Your task to perform on an android device: uninstall "AliExpress" Image 0: 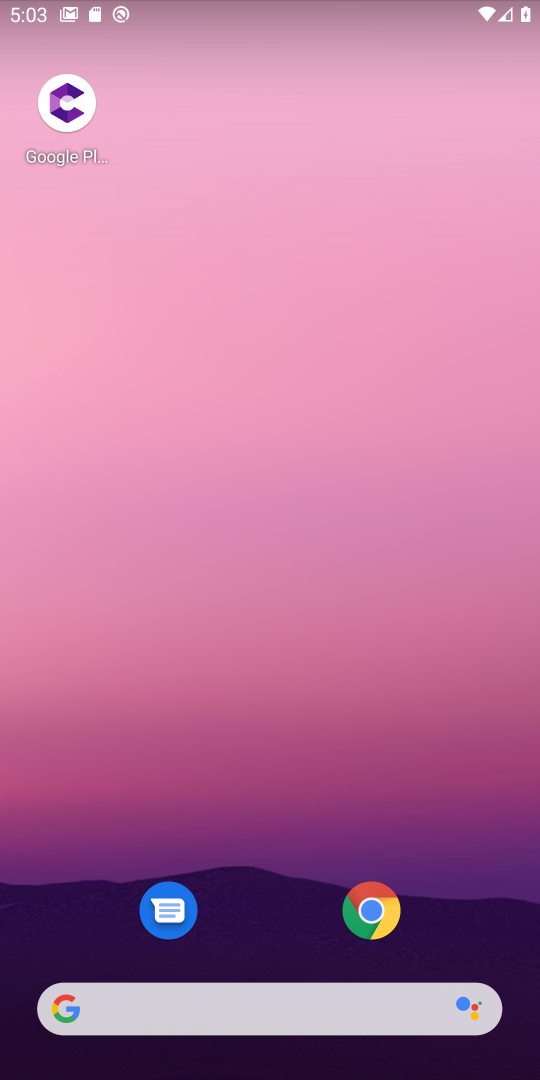
Step 0: drag from (279, 895) to (279, 45)
Your task to perform on an android device: uninstall "AliExpress" Image 1: 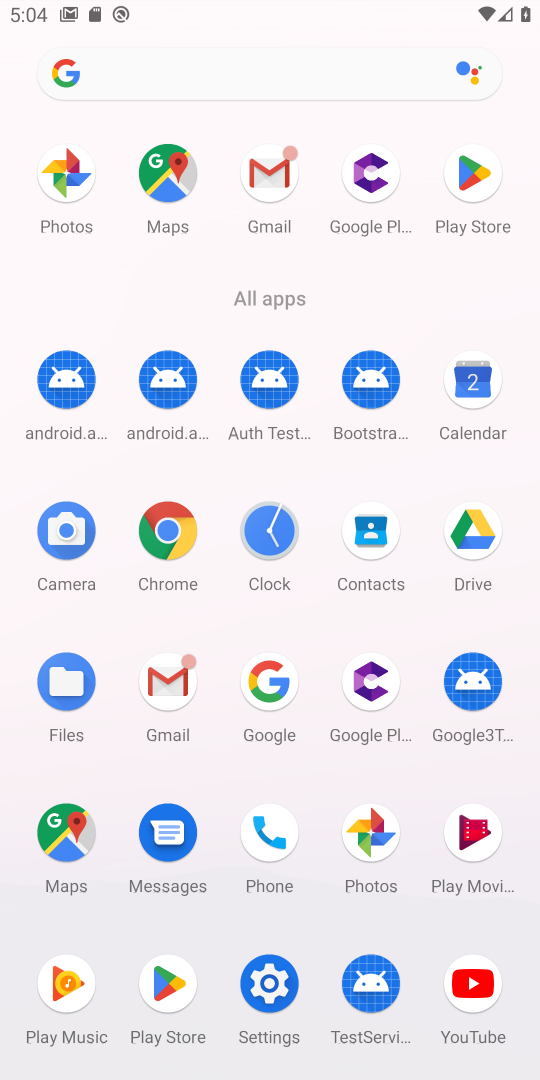
Step 1: click (466, 192)
Your task to perform on an android device: uninstall "AliExpress" Image 2: 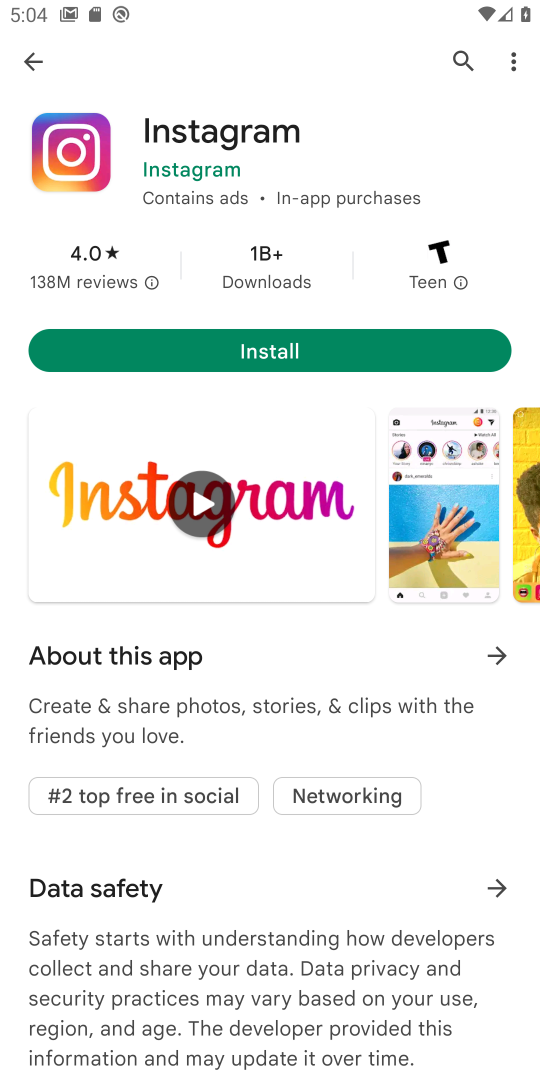
Step 2: click (463, 66)
Your task to perform on an android device: uninstall "AliExpress" Image 3: 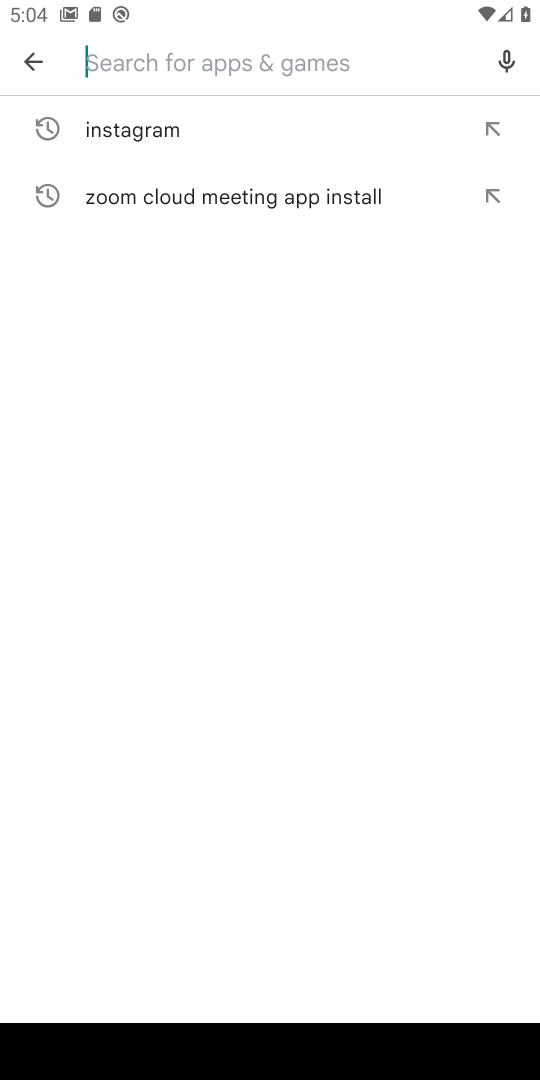
Step 3: type "aliexpress"
Your task to perform on an android device: uninstall "AliExpress" Image 4: 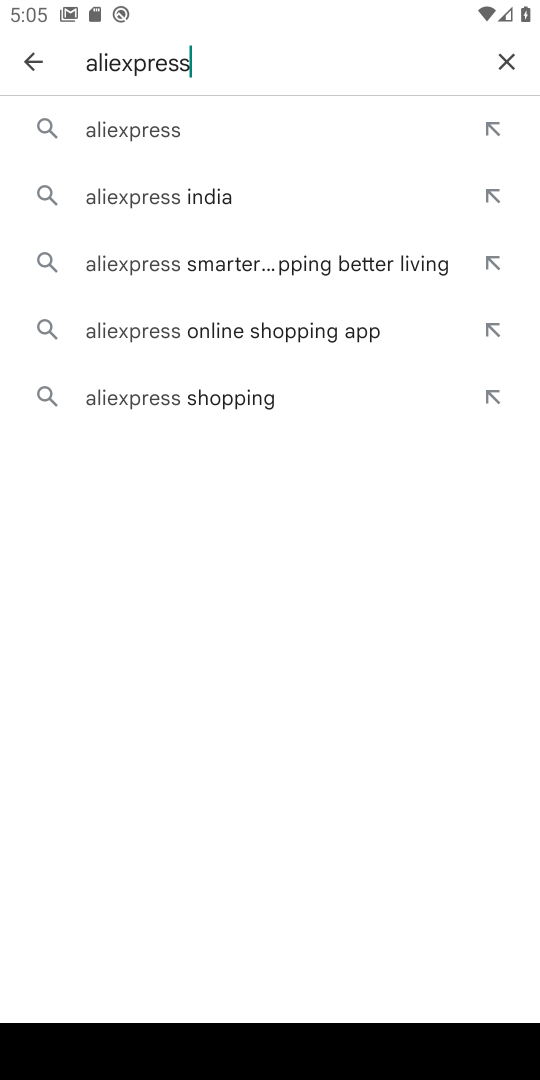
Step 4: click (233, 128)
Your task to perform on an android device: uninstall "AliExpress" Image 5: 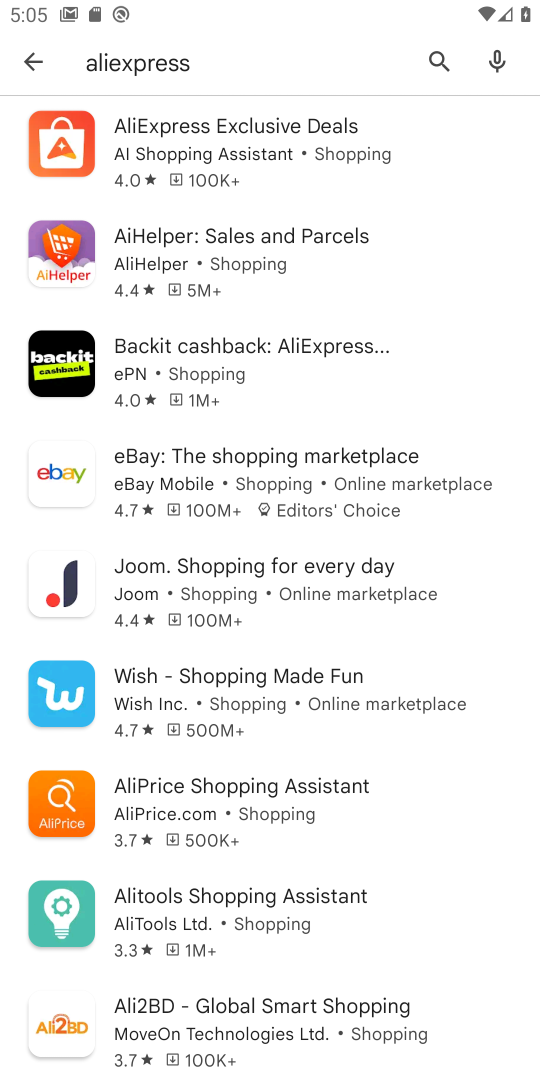
Step 5: click (223, 183)
Your task to perform on an android device: uninstall "AliExpress" Image 6: 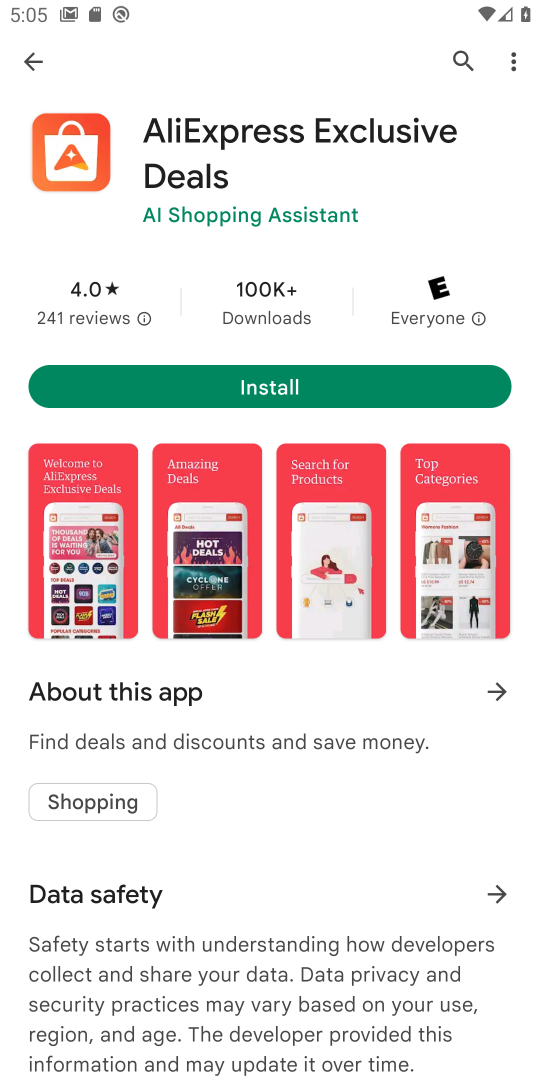
Step 6: task complete